Your task to perform on an android device: open chrome and create a bookmark for the current page Image 0: 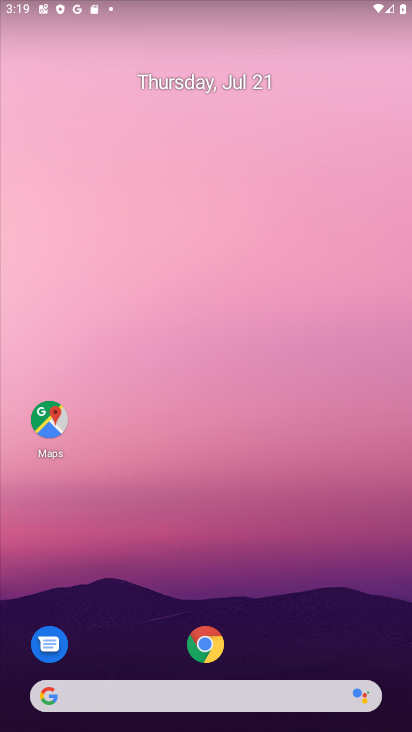
Step 0: press home button
Your task to perform on an android device: open chrome and create a bookmark for the current page Image 1: 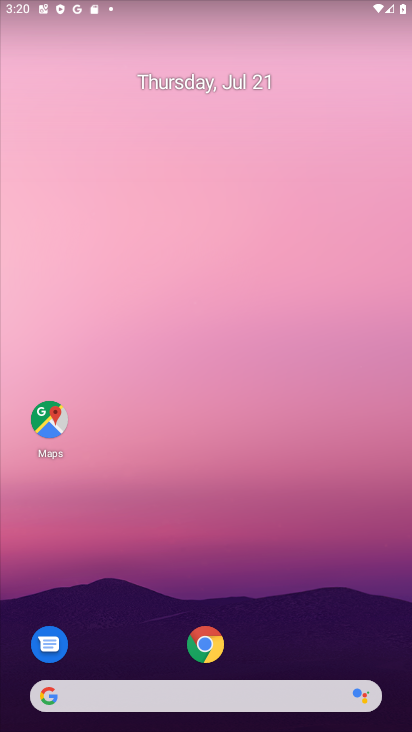
Step 1: click (200, 641)
Your task to perform on an android device: open chrome and create a bookmark for the current page Image 2: 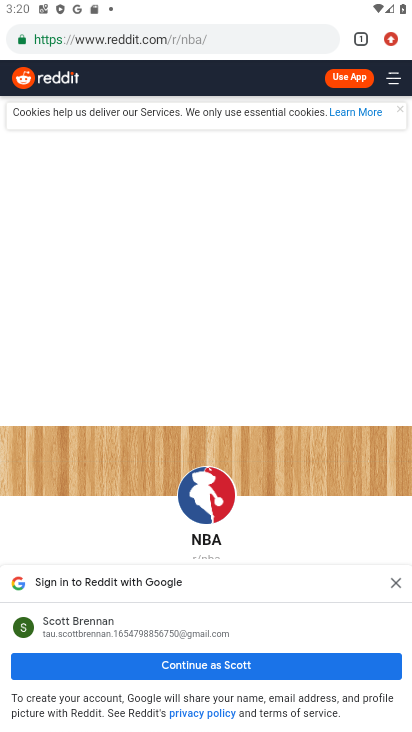
Step 2: click (389, 41)
Your task to perform on an android device: open chrome and create a bookmark for the current page Image 3: 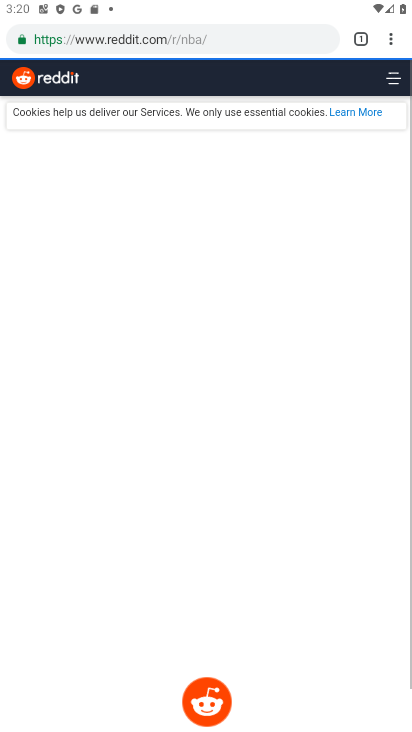
Step 3: drag from (389, 41) to (270, 41)
Your task to perform on an android device: open chrome and create a bookmark for the current page Image 4: 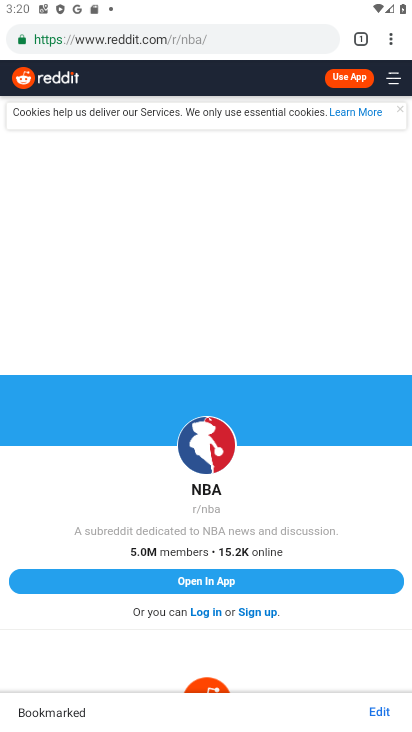
Step 4: click (392, 32)
Your task to perform on an android device: open chrome and create a bookmark for the current page Image 5: 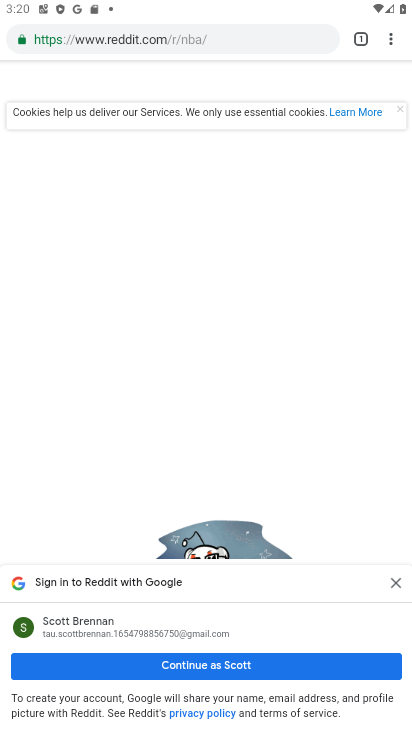
Step 5: task complete